Your task to perform on an android device: turn notification dots off Image 0: 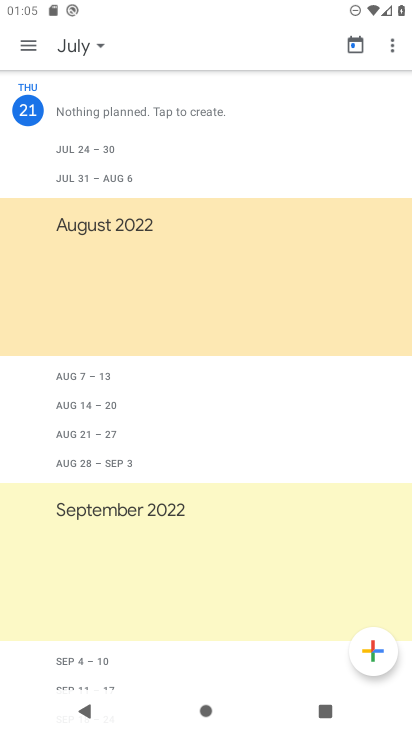
Step 0: press home button
Your task to perform on an android device: turn notification dots off Image 1: 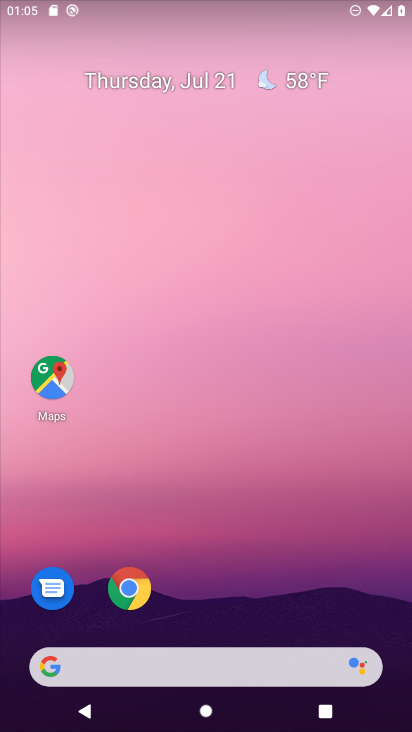
Step 1: drag from (176, 603) to (169, 8)
Your task to perform on an android device: turn notification dots off Image 2: 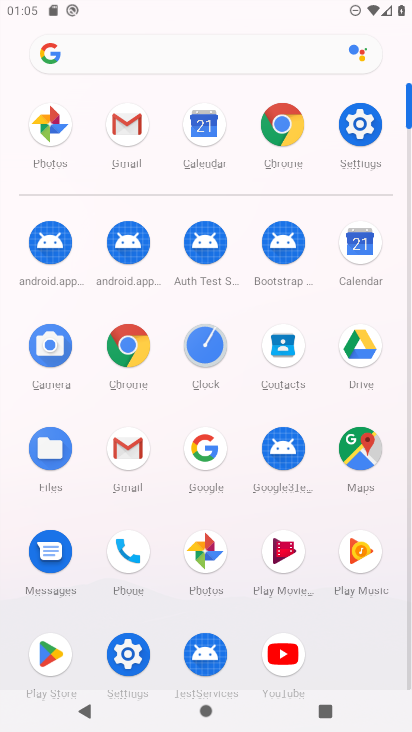
Step 2: click (121, 643)
Your task to perform on an android device: turn notification dots off Image 3: 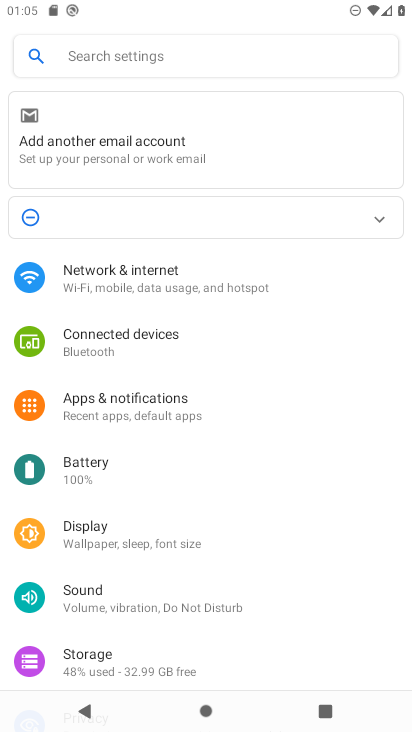
Step 3: click (164, 412)
Your task to perform on an android device: turn notification dots off Image 4: 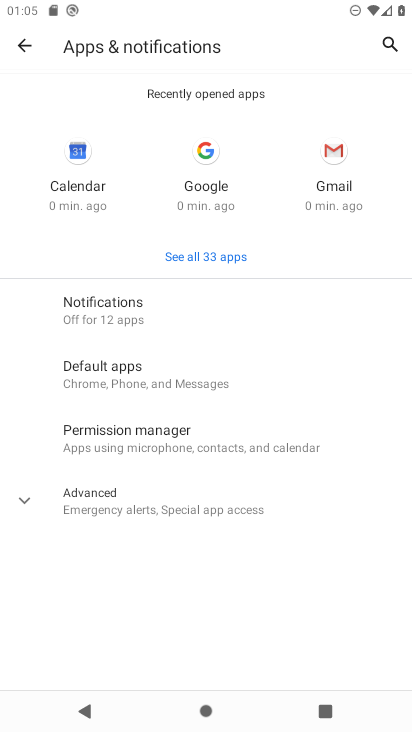
Step 4: click (139, 319)
Your task to perform on an android device: turn notification dots off Image 5: 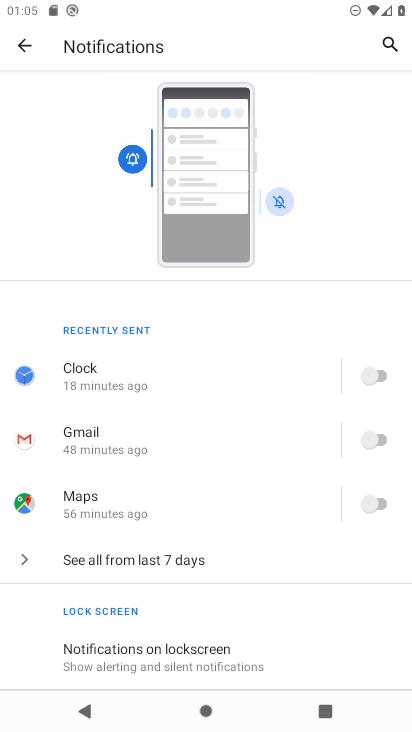
Step 5: drag from (142, 645) to (129, 468)
Your task to perform on an android device: turn notification dots off Image 6: 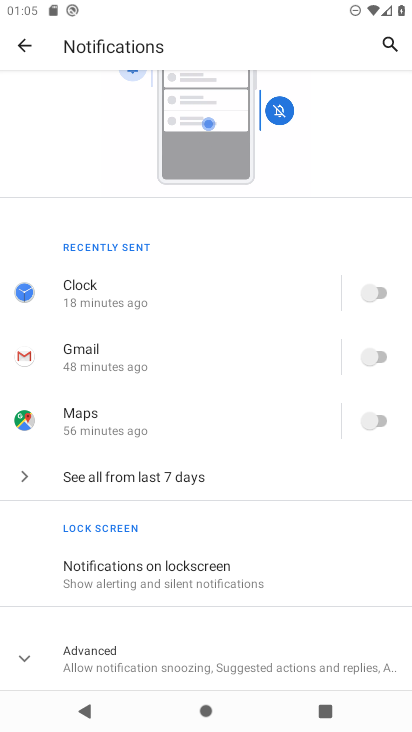
Step 6: click (145, 667)
Your task to perform on an android device: turn notification dots off Image 7: 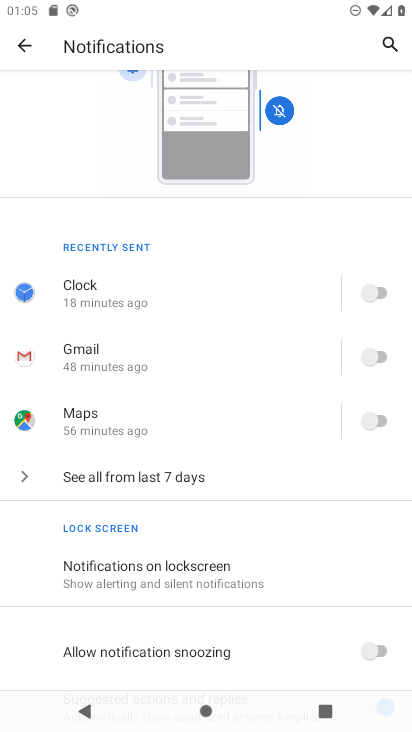
Step 7: task complete